Your task to perform on an android device: read, delete, or share a saved page in the chrome app Image 0: 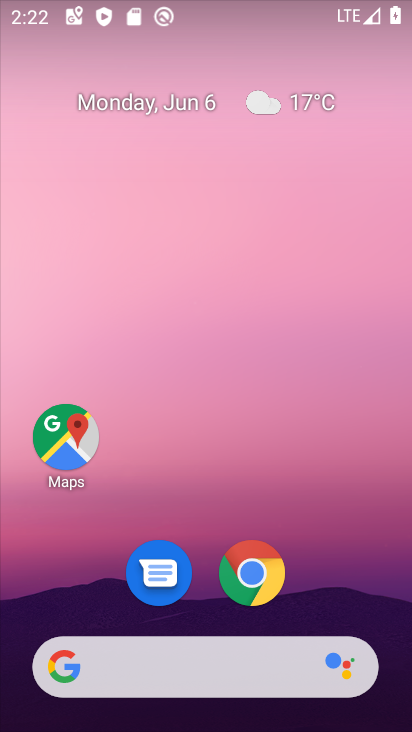
Step 0: drag from (330, 579) to (341, 209)
Your task to perform on an android device: read, delete, or share a saved page in the chrome app Image 1: 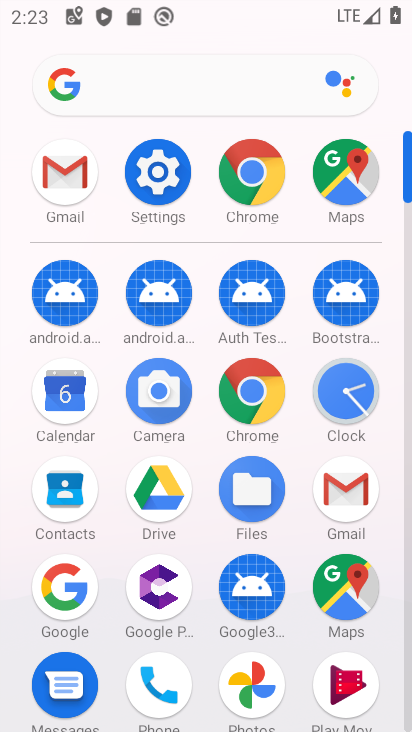
Step 1: click (258, 409)
Your task to perform on an android device: read, delete, or share a saved page in the chrome app Image 2: 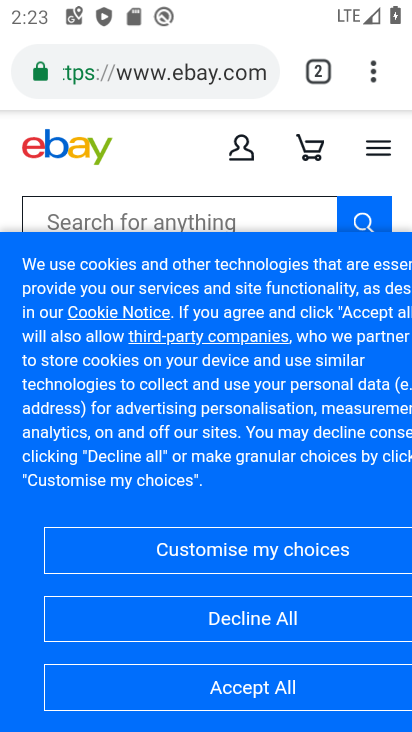
Step 2: click (373, 87)
Your task to perform on an android device: read, delete, or share a saved page in the chrome app Image 3: 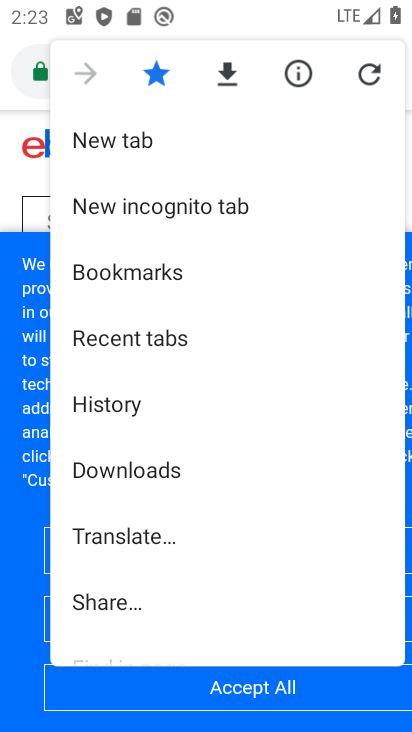
Step 3: drag from (286, 441) to (302, 327)
Your task to perform on an android device: read, delete, or share a saved page in the chrome app Image 4: 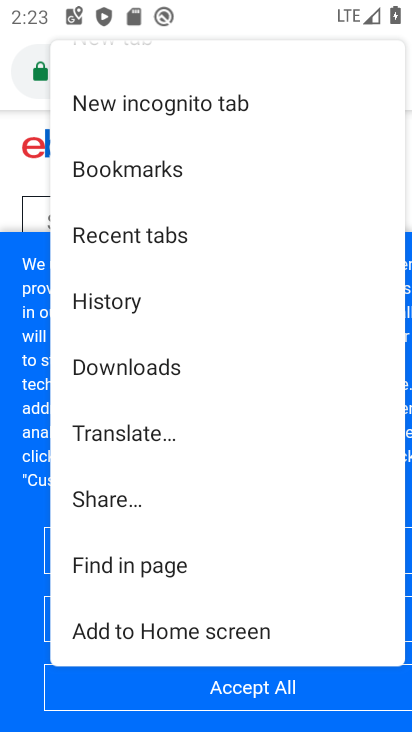
Step 4: drag from (273, 456) to (297, 226)
Your task to perform on an android device: read, delete, or share a saved page in the chrome app Image 5: 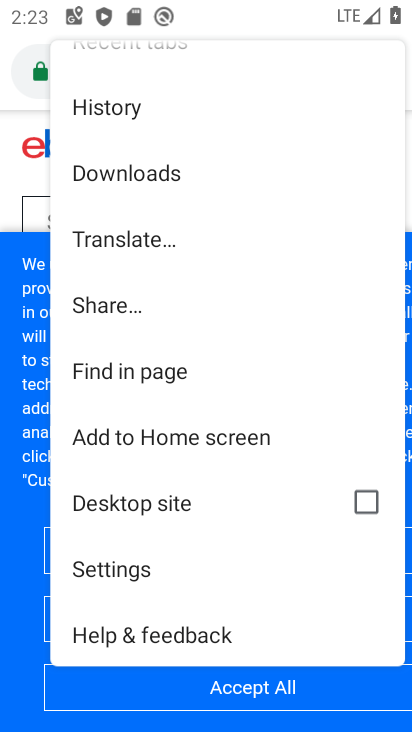
Step 5: click (202, 181)
Your task to perform on an android device: read, delete, or share a saved page in the chrome app Image 6: 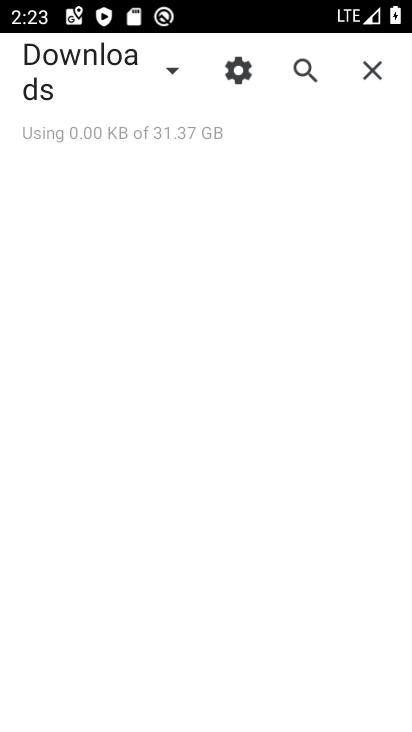
Step 6: click (169, 72)
Your task to perform on an android device: read, delete, or share a saved page in the chrome app Image 7: 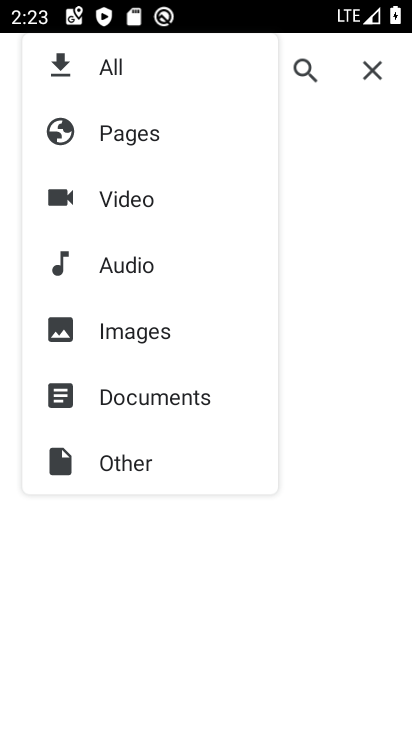
Step 7: click (124, 148)
Your task to perform on an android device: read, delete, or share a saved page in the chrome app Image 8: 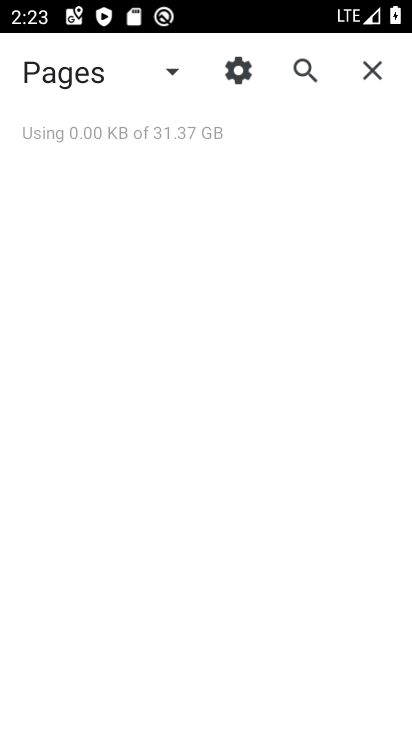
Step 8: task complete